Your task to perform on an android device: How big is the moon? Image 0: 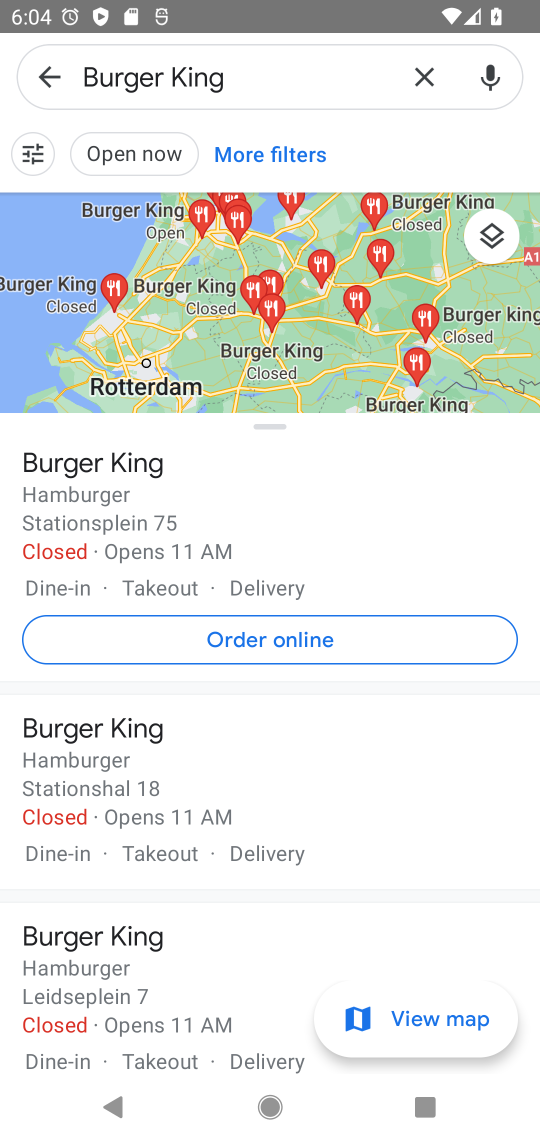
Step 0: press home button
Your task to perform on an android device: How big is the moon? Image 1: 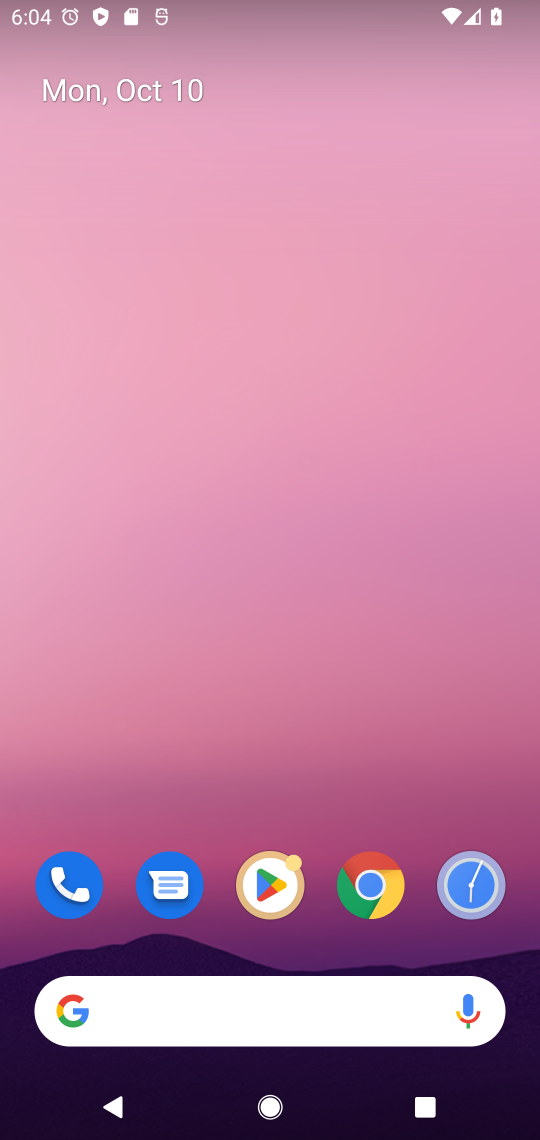
Step 1: click (363, 900)
Your task to perform on an android device: How big is the moon? Image 2: 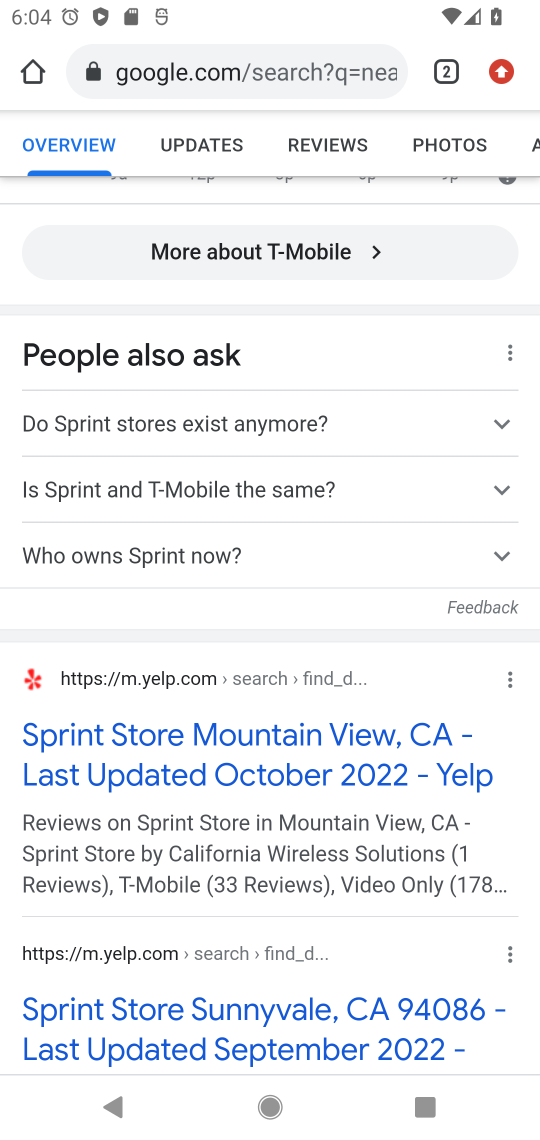
Step 2: click (329, 76)
Your task to perform on an android device: How big is the moon? Image 3: 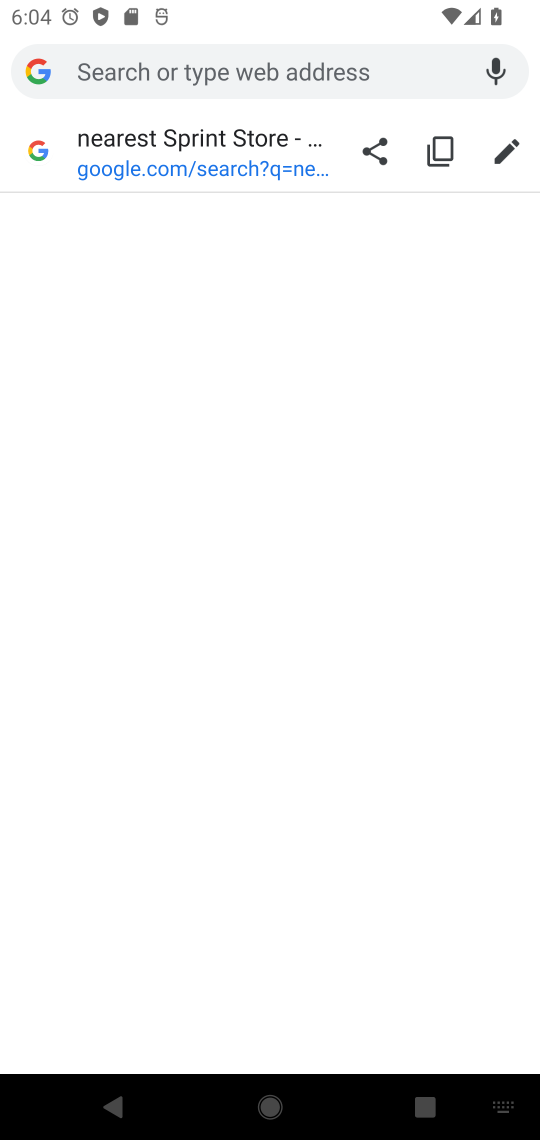
Step 3: type "How big is the moon"
Your task to perform on an android device: How big is the moon? Image 4: 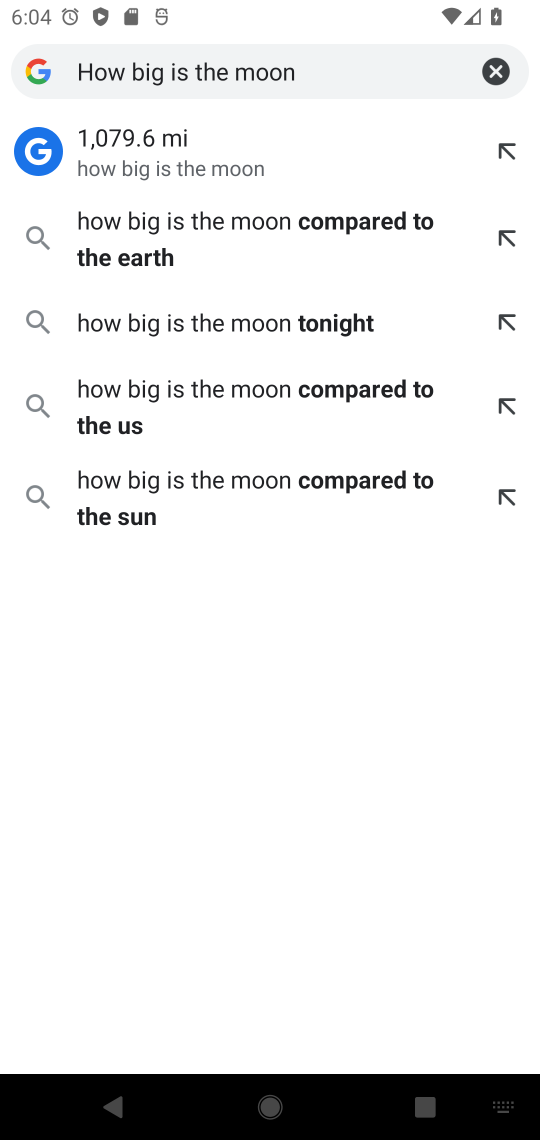
Step 4: click (234, 154)
Your task to perform on an android device: How big is the moon? Image 5: 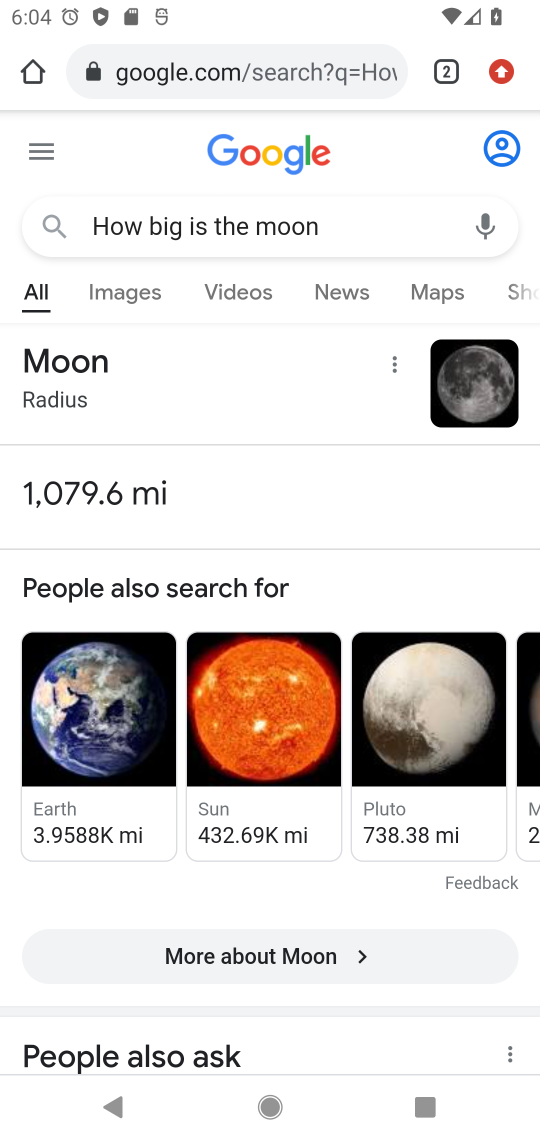
Step 5: task complete